Your task to perform on an android device: check battery use Image 0: 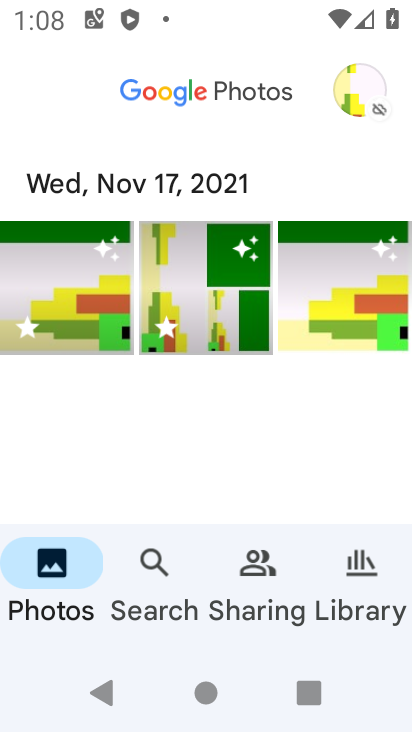
Step 0: press home button
Your task to perform on an android device: check battery use Image 1: 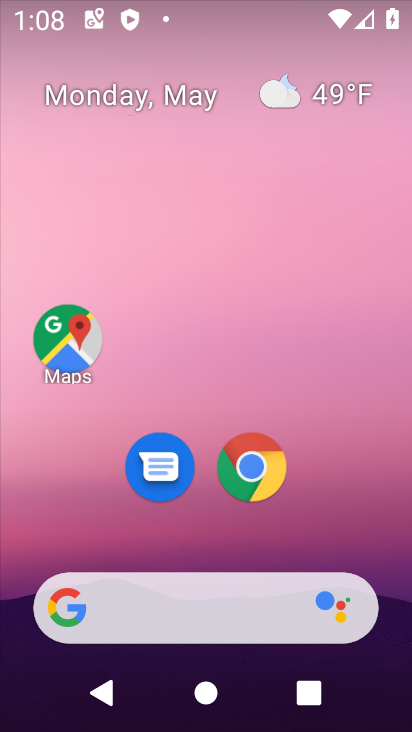
Step 1: drag from (340, 540) to (335, 165)
Your task to perform on an android device: check battery use Image 2: 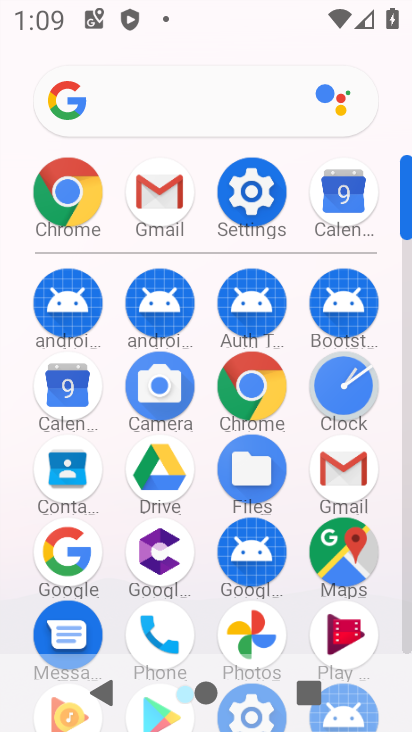
Step 2: click (255, 217)
Your task to perform on an android device: check battery use Image 3: 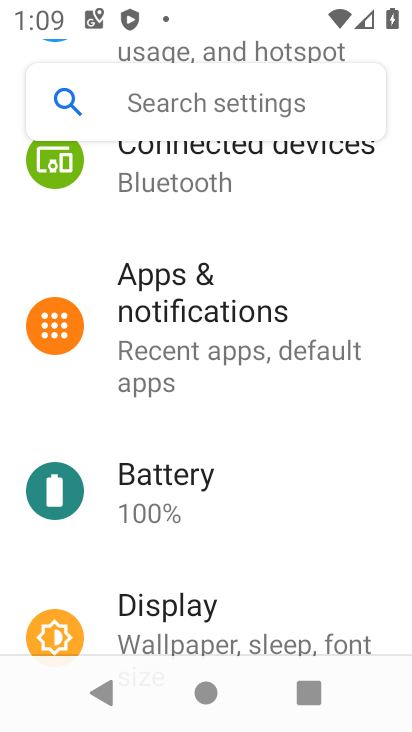
Step 3: click (210, 488)
Your task to perform on an android device: check battery use Image 4: 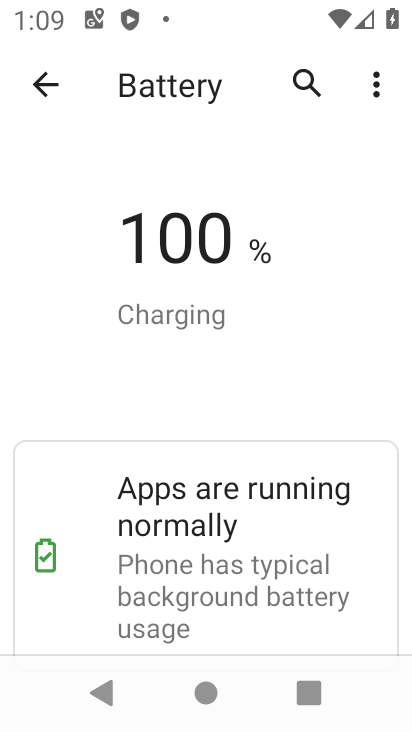
Step 4: task complete